Your task to perform on an android device: Open the Play Movies app and select the watchlist tab. Image 0: 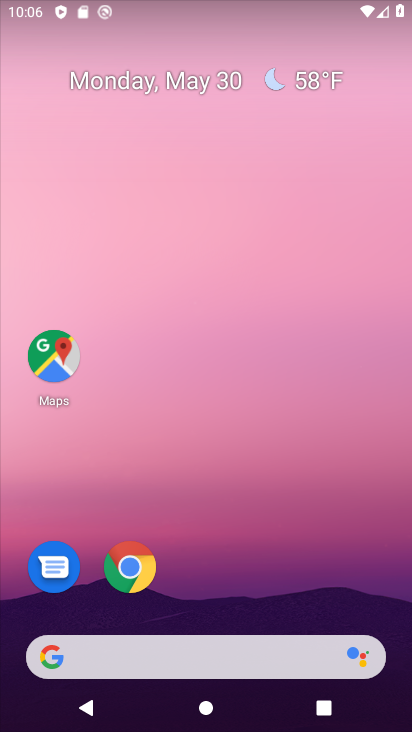
Step 0: drag from (210, 596) to (212, 139)
Your task to perform on an android device: Open the Play Movies app and select the watchlist tab. Image 1: 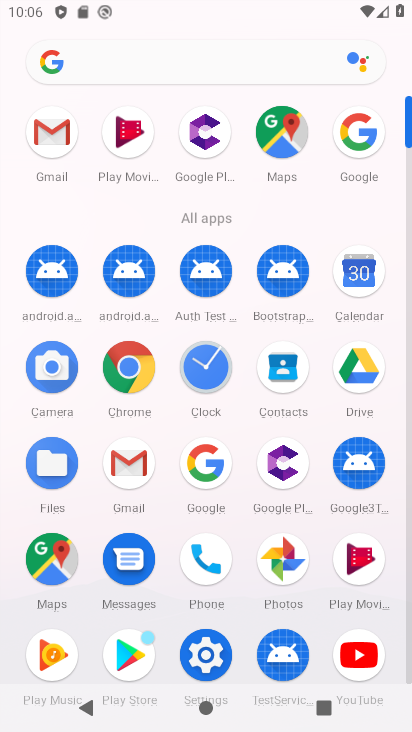
Step 1: click (365, 574)
Your task to perform on an android device: Open the Play Movies app and select the watchlist tab. Image 2: 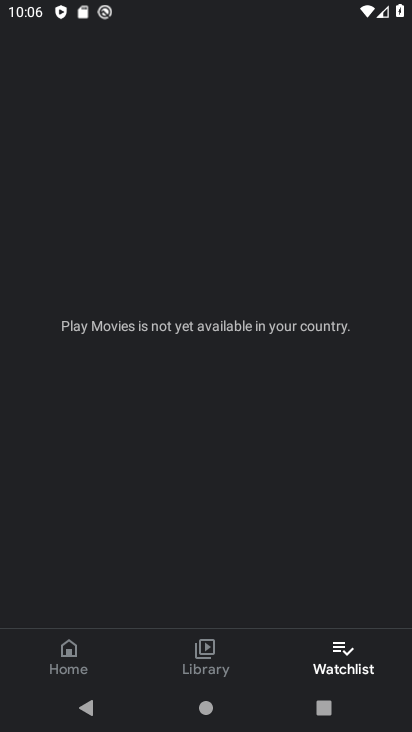
Step 2: task complete